Your task to perform on an android device: Go to wifi settings Image 0: 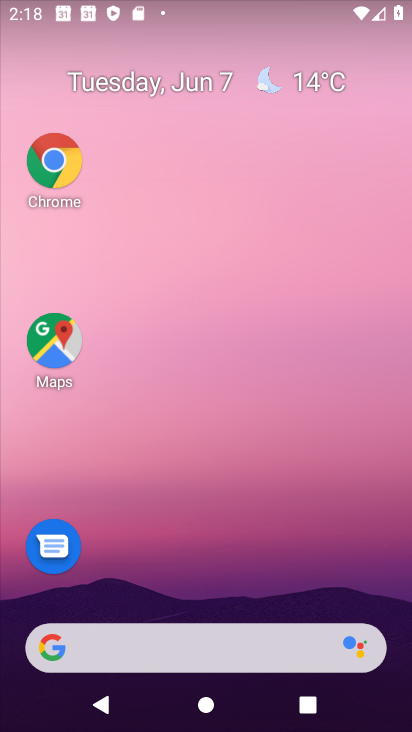
Step 0: click (323, 94)
Your task to perform on an android device: Go to wifi settings Image 1: 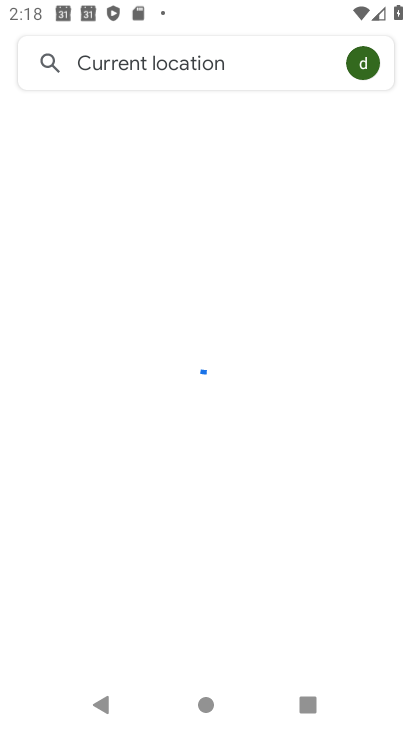
Step 1: press home button
Your task to perform on an android device: Go to wifi settings Image 2: 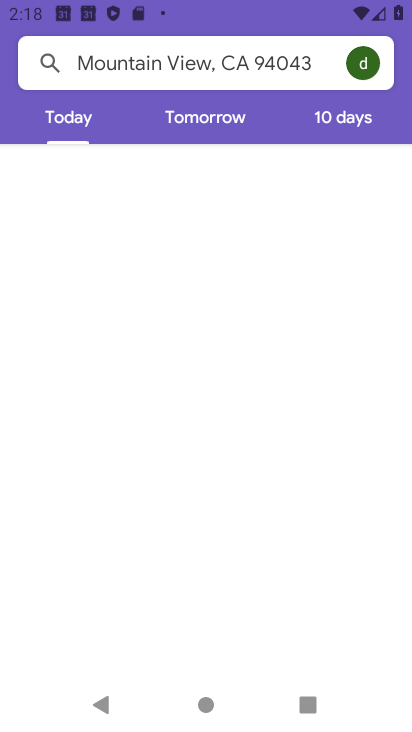
Step 2: drag from (280, 518) to (282, 5)
Your task to perform on an android device: Go to wifi settings Image 3: 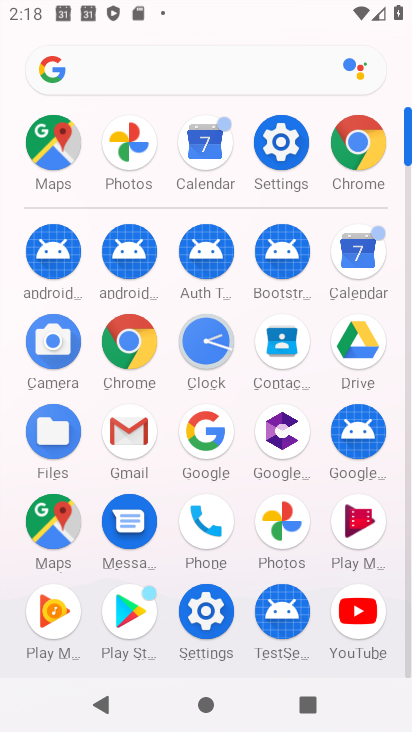
Step 3: click (282, 154)
Your task to perform on an android device: Go to wifi settings Image 4: 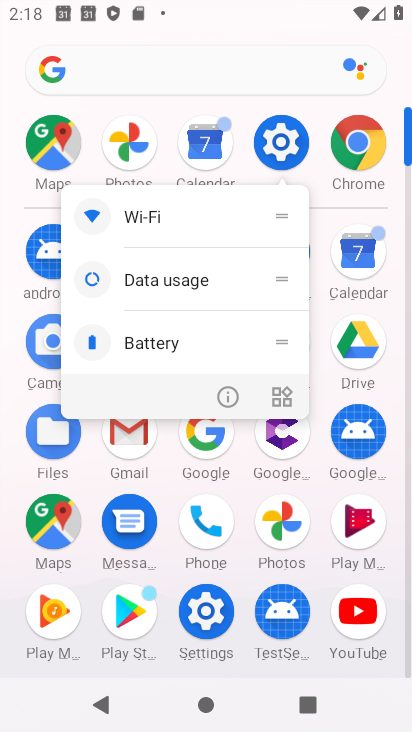
Step 4: click (219, 398)
Your task to perform on an android device: Go to wifi settings Image 5: 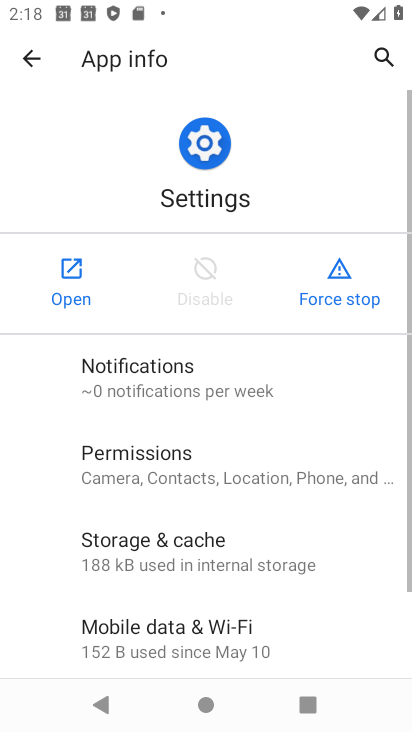
Step 5: click (60, 291)
Your task to perform on an android device: Go to wifi settings Image 6: 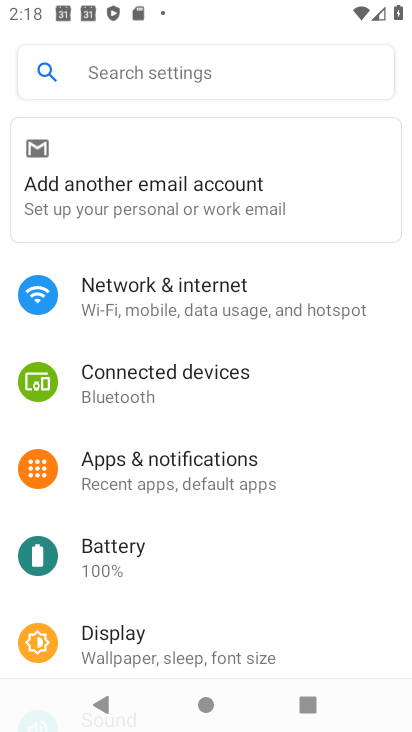
Step 6: click (131, 308)
Your task to perform on an android device: Go to wifi settings Image 7: 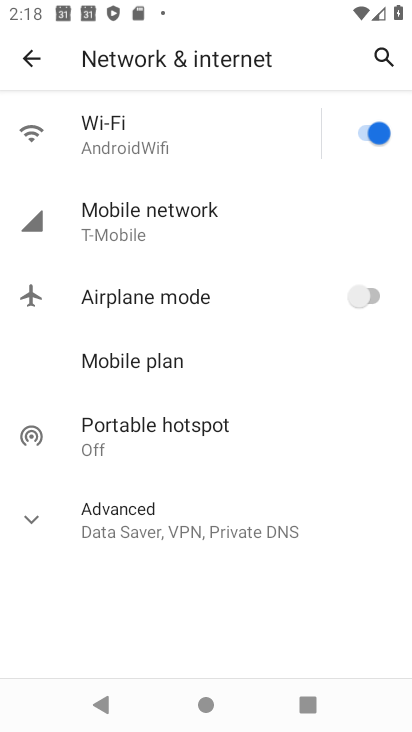
Step 7: click (180, 135)
Your task to perform on an android device: Go to wifi settings Image 8: 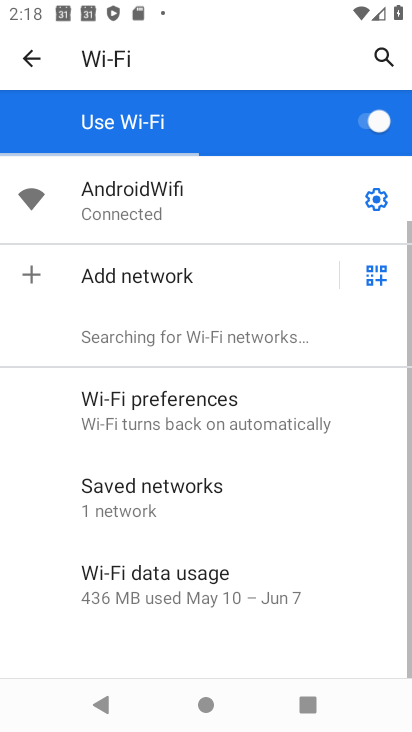
Step 8: drag from (170, 564) to (273, 39)
Your task to perform on an android device: Go to wifi settings Image 9: 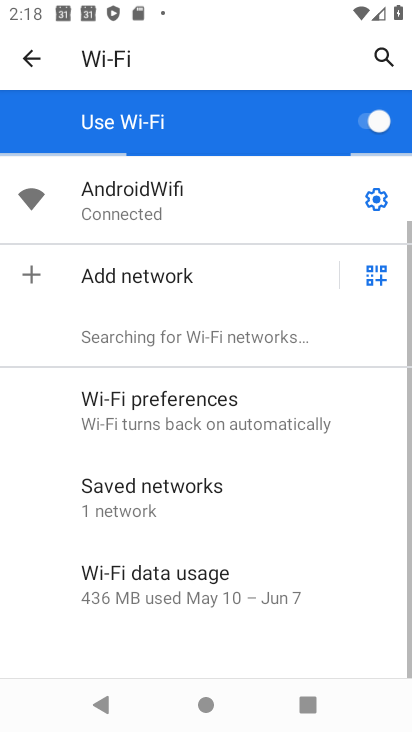
Step 9: drag from (258, 269) to (225, 666)
Your task to perform on an android device: Go to wifi settings Image 10: 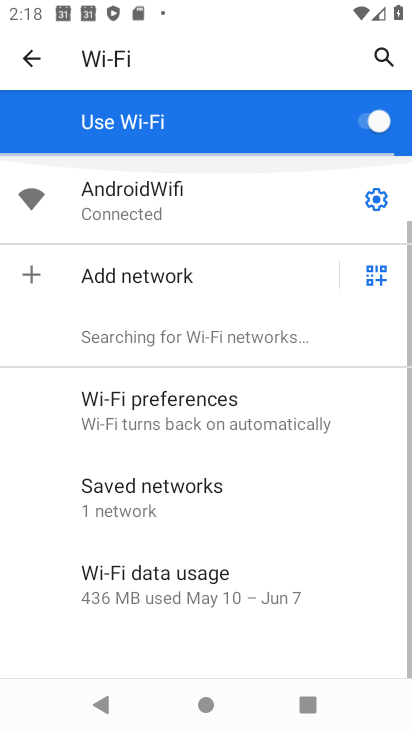
Step 10: drag from (187, 551) to (297, 146)
Your task to perform on an android device: Go to wifi settings Image 11: 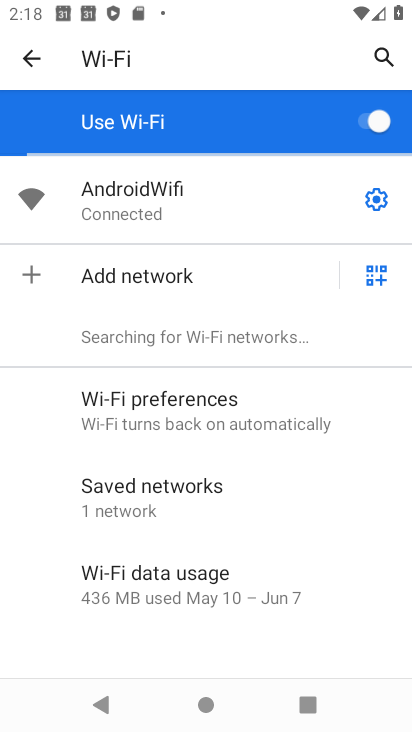
Step 11: click (377, 198)
Your task to perform on an android device: Go to wifi settings Image 12: 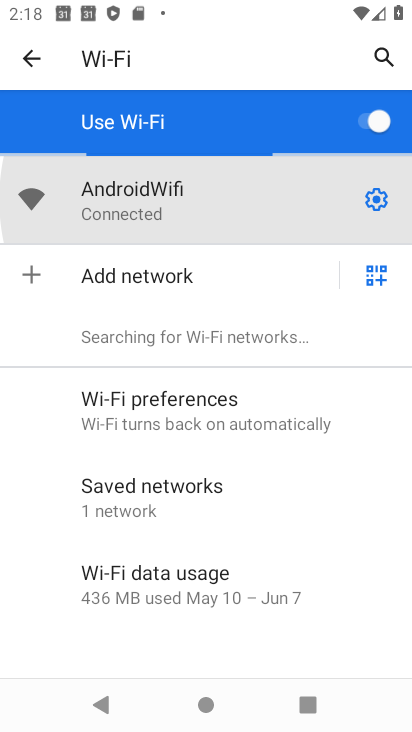
Step 12: task complete